Your task to perform on an android device: turn off wifi Image 0: 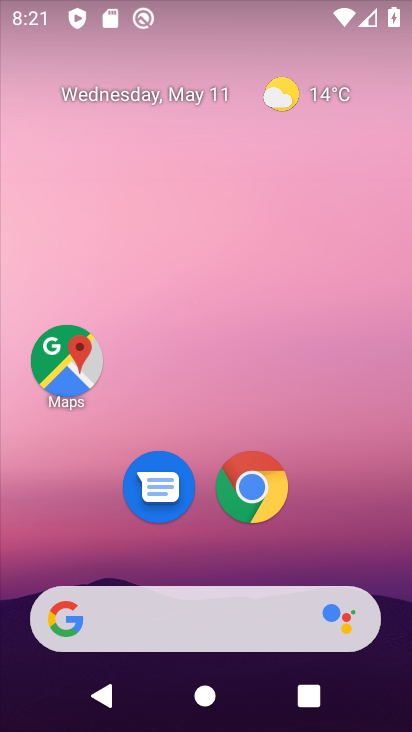
Step 0: drag from (287, 451) to (260, 197)
Your task to perform on an android device: turn off wifi Image 1: 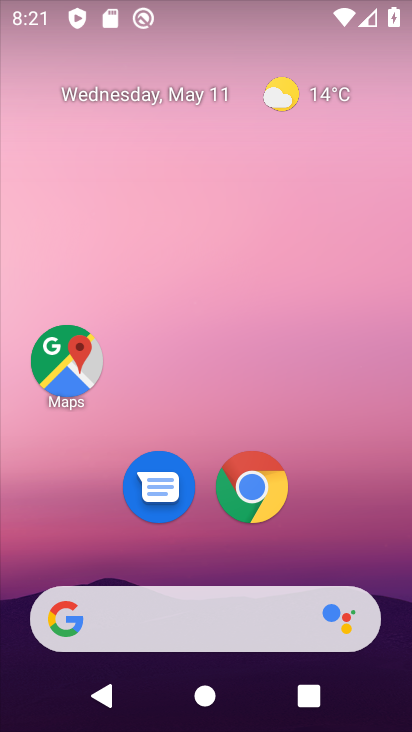
Step 1: drag from (261, 546) to (272, 180)
Your task to perform on an android device: turn off wifi Image 2: 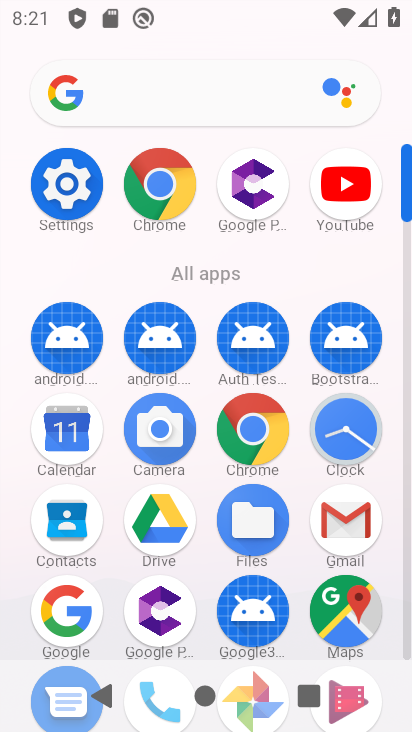
Step 2: click (65, 210)
Your task to perform on an android device: turn off wifi Image 3: 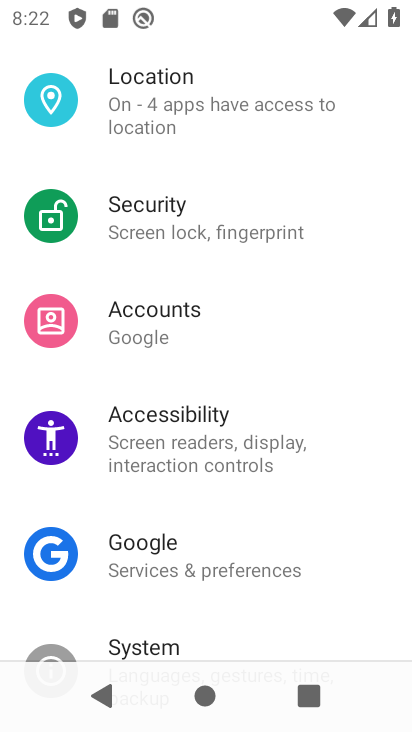
Step 3: drag from (223, 211) to (202, 431)
Your task to perform on an android device: turn off wifi Image 4: 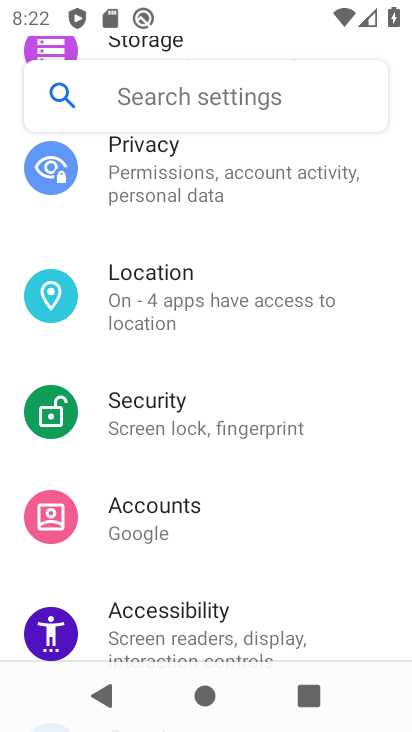
Step 4: drag from (253, 288) to (225, 500)
Your task to perform on an android device: turn off wifi Image 5: 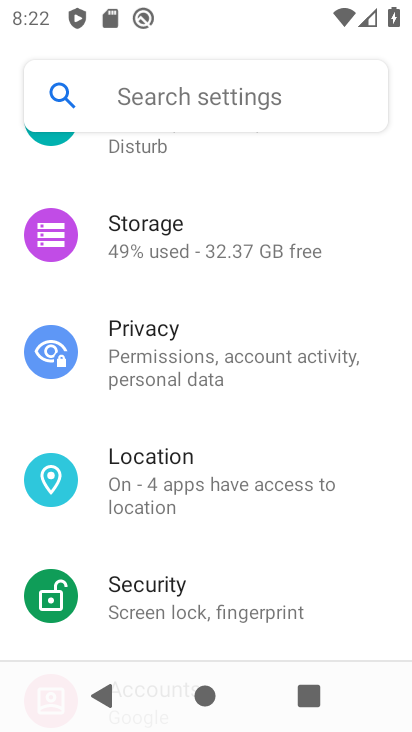
Step 5: drag from (256, 375) to (245, 413)
Your task to perform on an android device: turn off wifi Image 6: 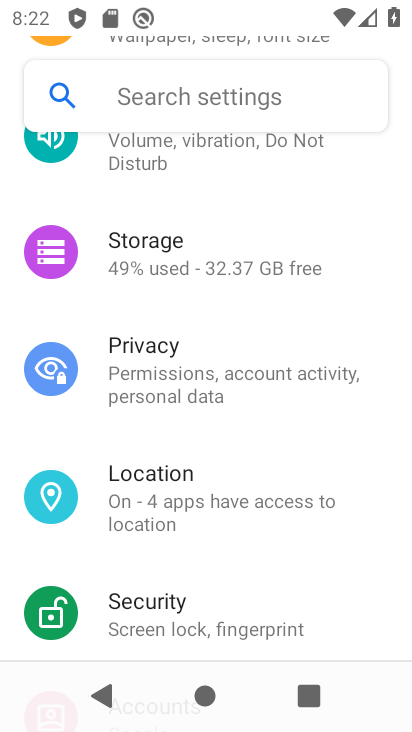
Step 6: drag from (255, 358) to (212, 568)
Your task to perform on an android device: turn off wifi Image 7: 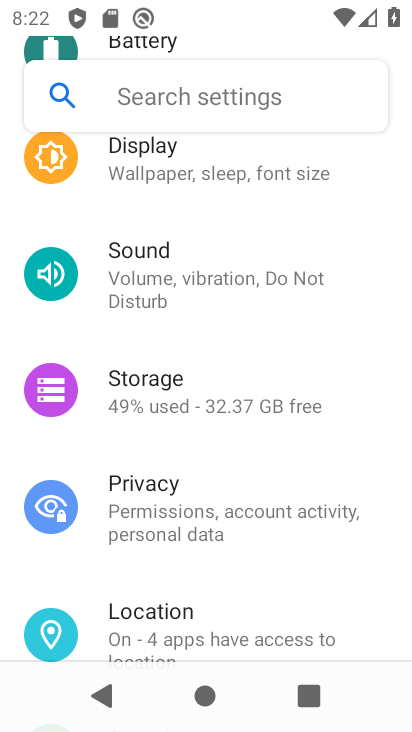
Step 7: drag from (253, 289) to (212, 579)
Your task to perform on an android device: turn off wifi Image 8: 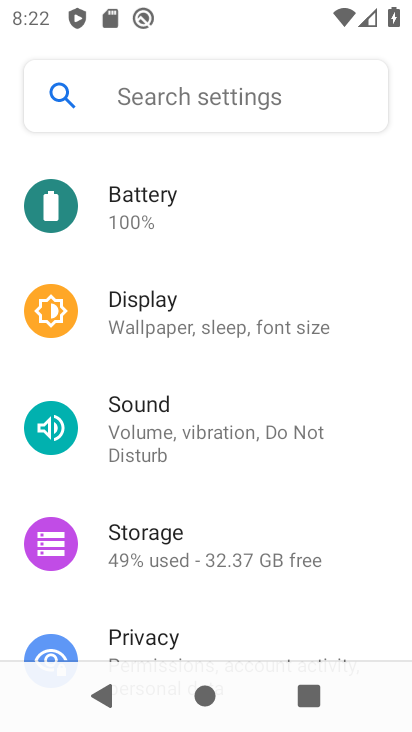
Step 8: drag from (246, 253) to (214, 703)
Your task to perform on an android device: turn off wifi Image 9: 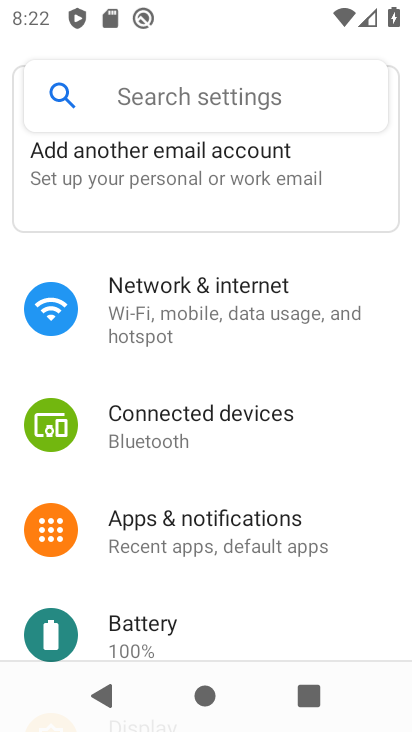
Step 9: click (189, 305)
Your task to perform on an android device: turn off wifi Image 10: 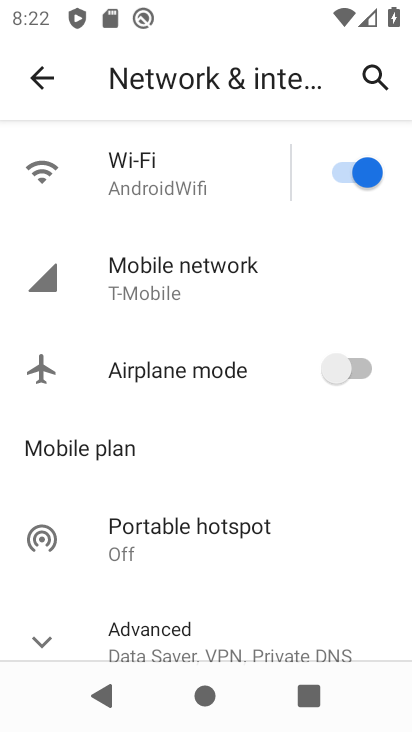
Step 10: click (344, 169)
Your task to perform on an android device: turn off wifi Image 11: 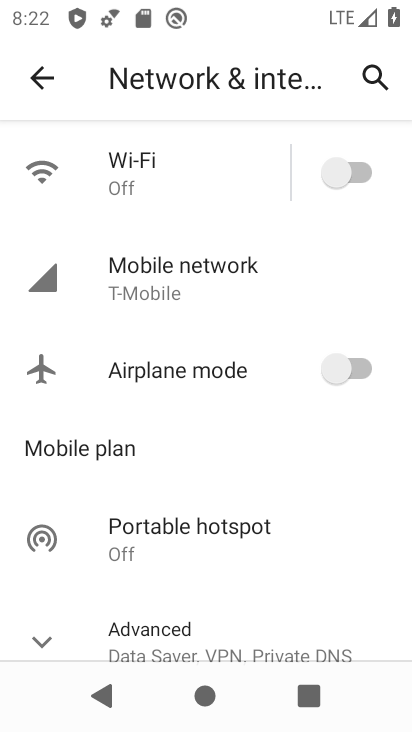
Step 11: task complete